Your task to perform on an android device: Go to wifi settings Image 0: 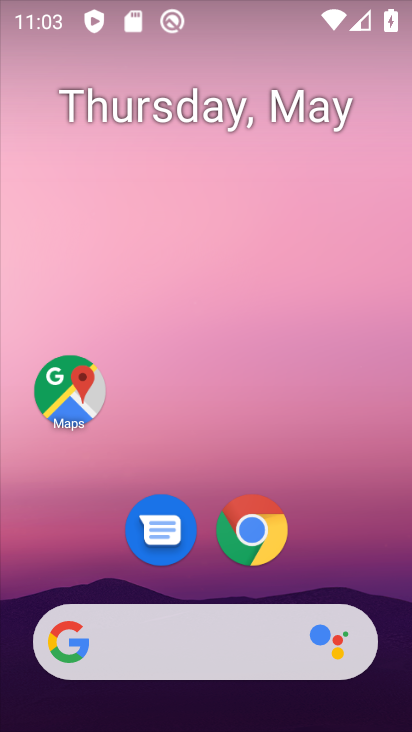
Step 0: drag from (225, 20) to (137, 621)
Your task to perform on an android device: Go to wifi settings Image 1: 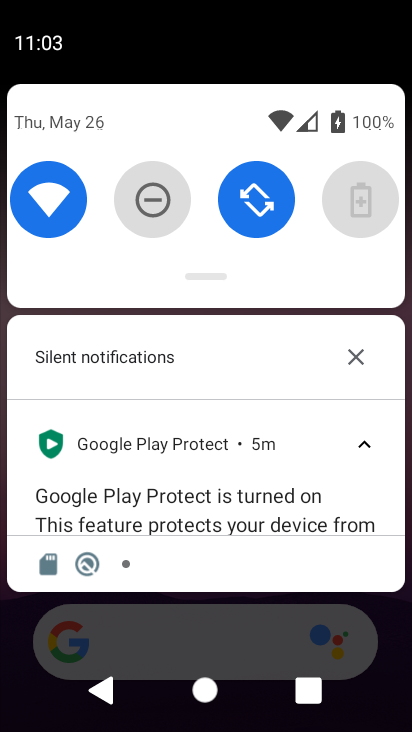
Step 1: click (53, 209)
Your task to perform on an android device: Go to wifi settings Image 2: 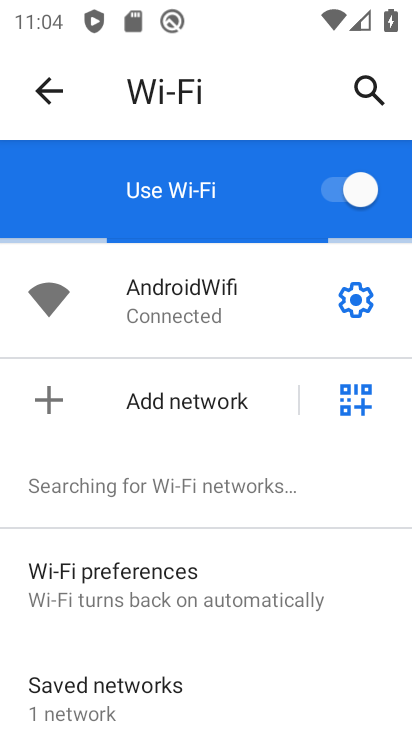
Step 2: task complete